Your task to perform on an android device: toggle location history Image 0: 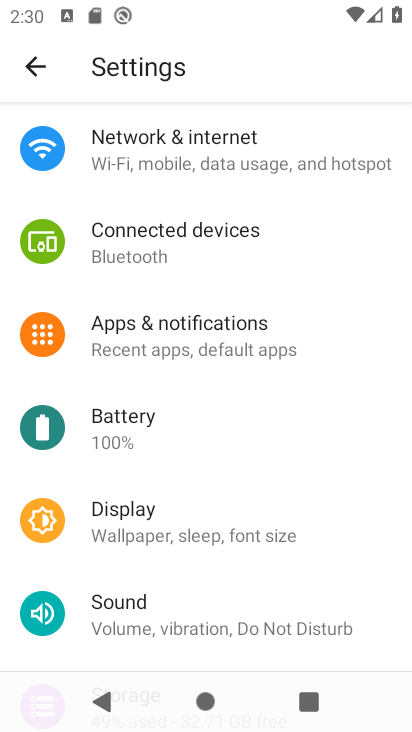
Step 0: drag from (199, 553) to (227, 194)
Your task to perform on an android device: toggle location history Image 1: 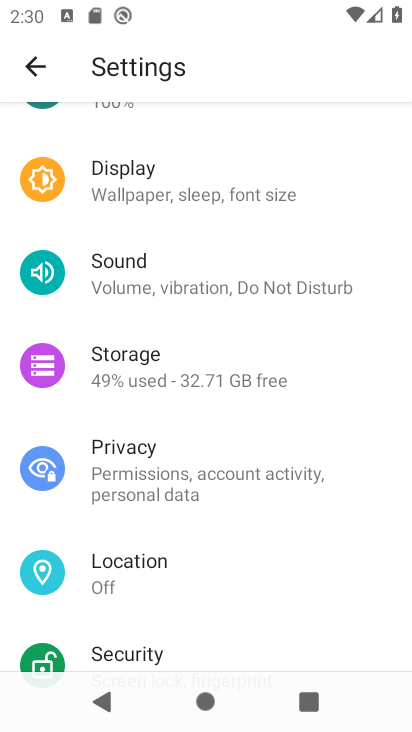
Step 1: click (170, 567)
Your task to perform on an android device: toggle location history Image 2: 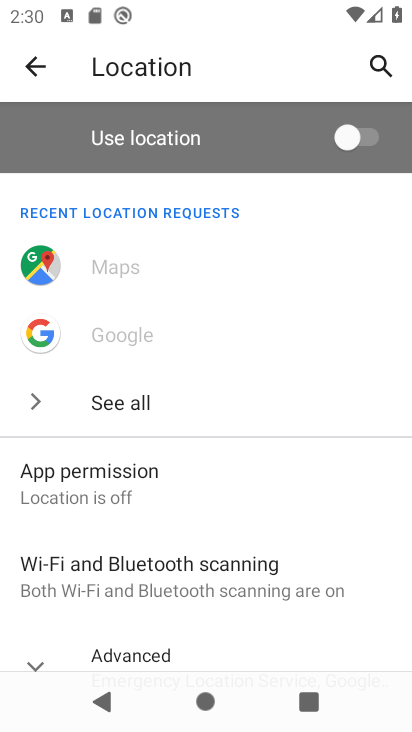
Step 2: drag from (203, 534) to (213, 187)
Your task to perform on an android device: toggle location history Image 3: 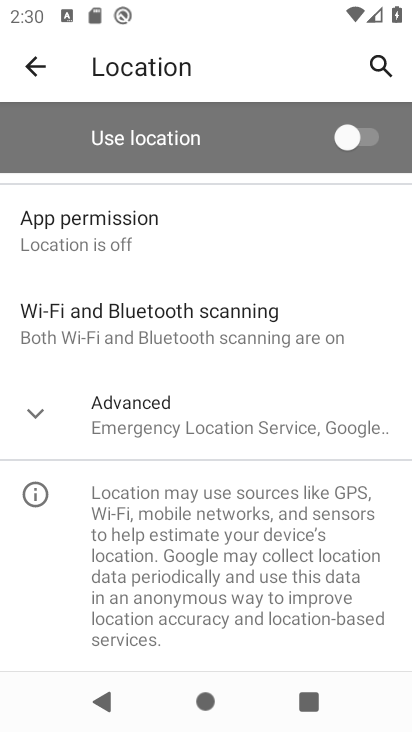
Step 3: click (38, 412)
Your task to perform on an android device: toggle location history Image 4: 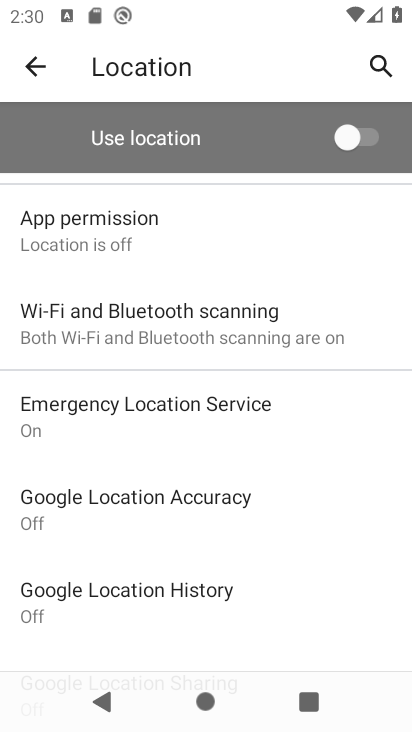
Step 4: click (201, 605)
Your task to perform on an android device: toggle location history Image 5: 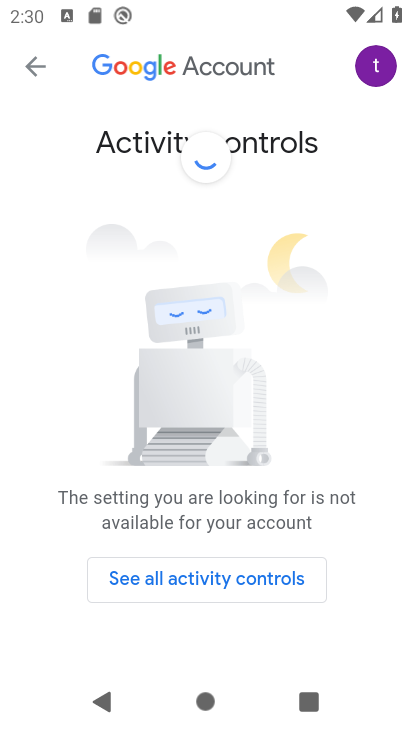
Step 5: click (230, 565)
Your task to perform on an android device: toggle location history Image 6: 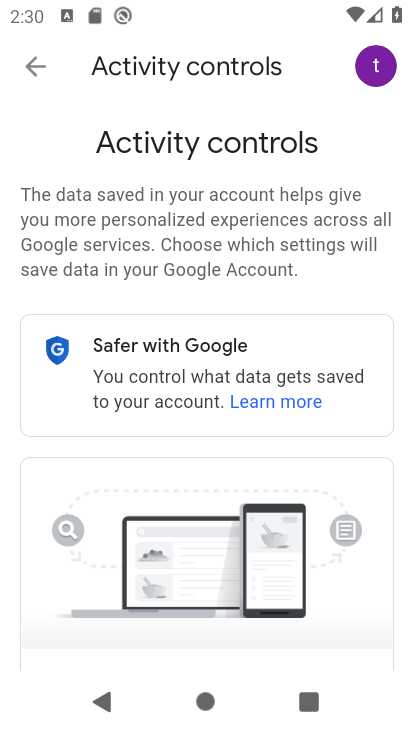
Step 6: drag from (240, 545) to (247, 284)
Your task to perform on an android device: toggle location history Image 7: 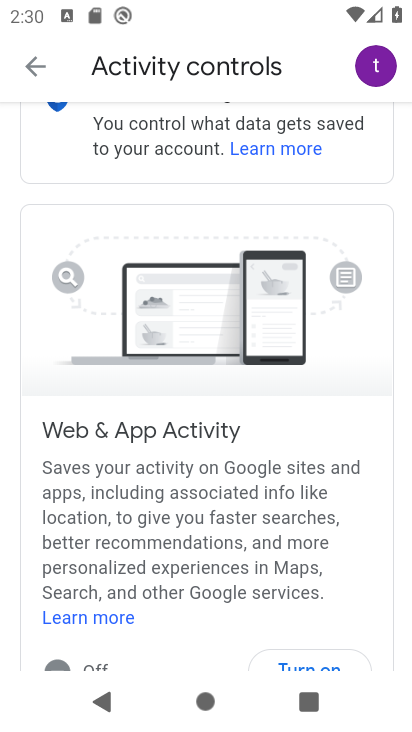
Step 7: drag from (139, 538) to (165, 356)
Your task to perform on an android device: toggle location history Image 8: 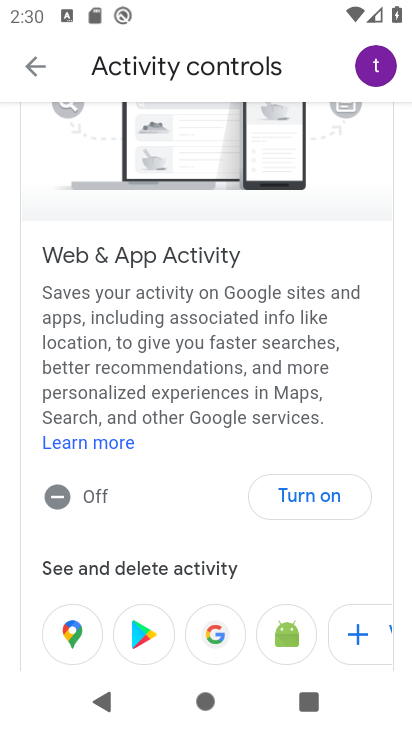
Step 8: click (292, 495)
Your task to perform on an android device: toggle location history Image 9: 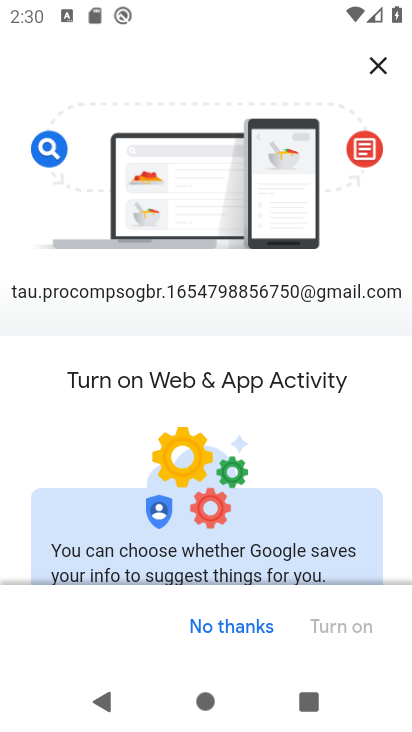
Step 9: drag from (294, 523) to (322, 129)
Your task to perform on an android device: toggle location history Image 10: 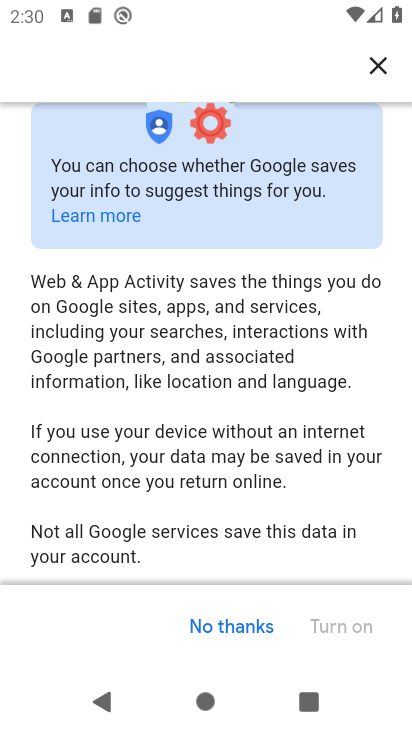
Step 10: drag from (313, 473) to (327, 63)
Your task to perform on an android device: toggle location history Image 11: 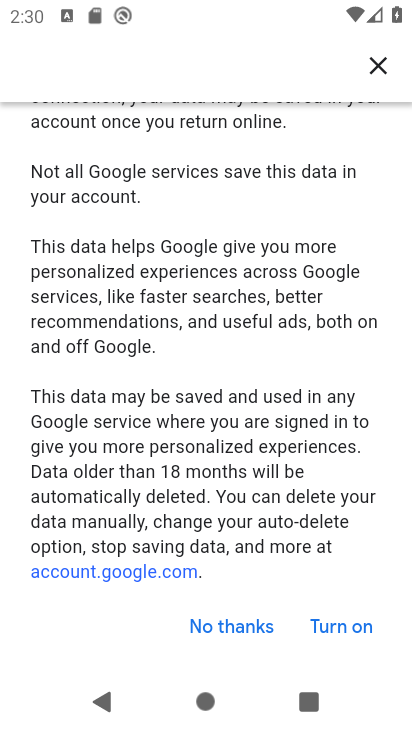
Step 11: click (326, 615)
Your task to perform on an android device: toggle location history Image 12: 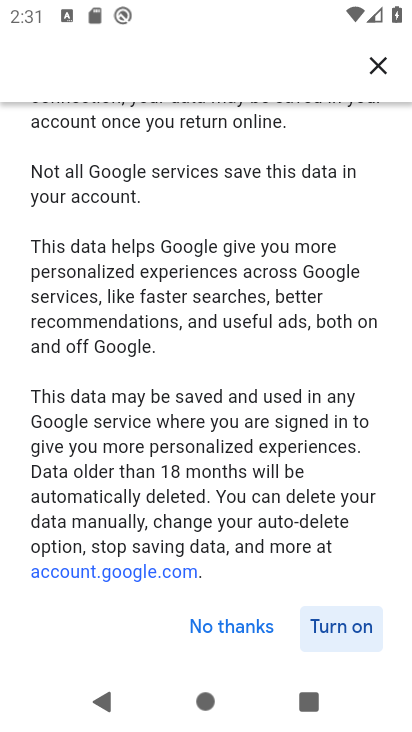
Step 12: click (329, 620)
Your task to perform on an android device: toggle location history Image 13: 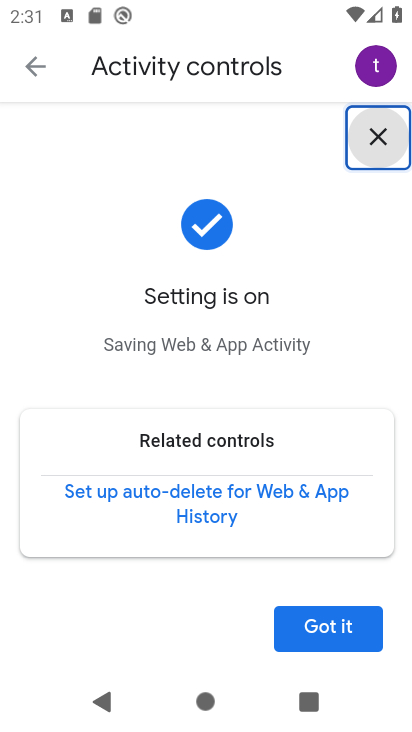
Step 13: click (329, 620)
Your task to perform on an android device: toggle location history Image 14: 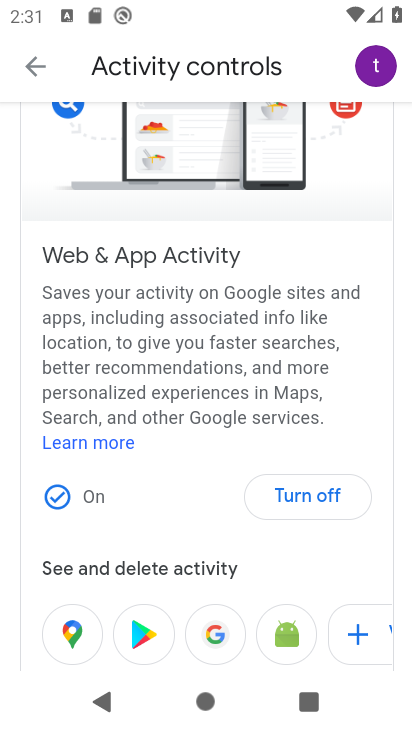
Step 14: task complete